Your task to perform on an android device: open a bookmark in the chrome app Image 0: 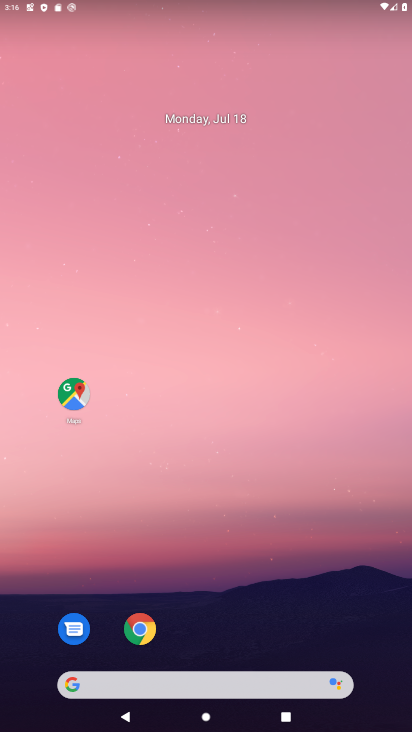
Step 0: click (148, 626)
Your task to perform on an android device: open a bookmark in the chrome app Image 1: 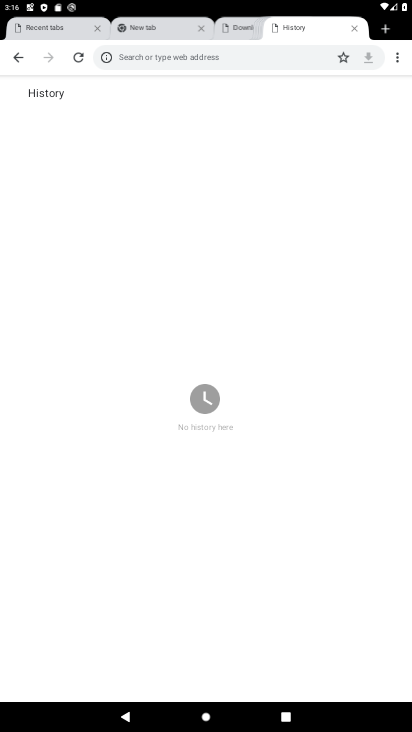
Step 1: click (393, 61)
Your task to perform on an android device: open a bookmark in the chrome app Image 2: 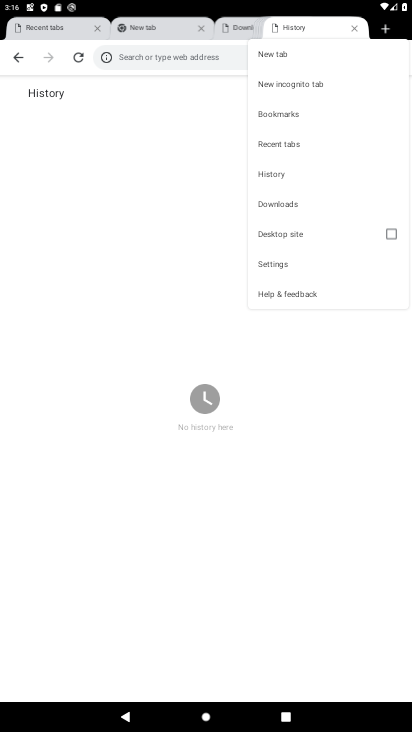
Step 2: click (301, 116)
Your task to perform on an android device: open a bookmark in the chrome app Image 3: 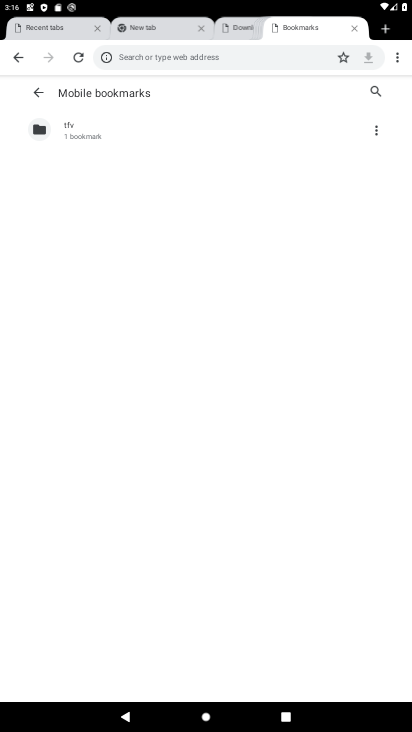
Step 3: click (76, 140)
Your task to perform on an android device: open a bookmark in the chrome app Image 4: 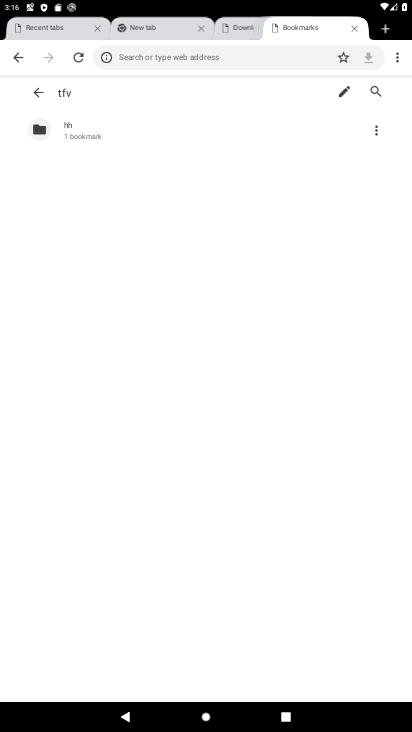
Step 4: click (76, 140)
Your task to perform on an android device: open a bookmark in the chrome app Image 5: 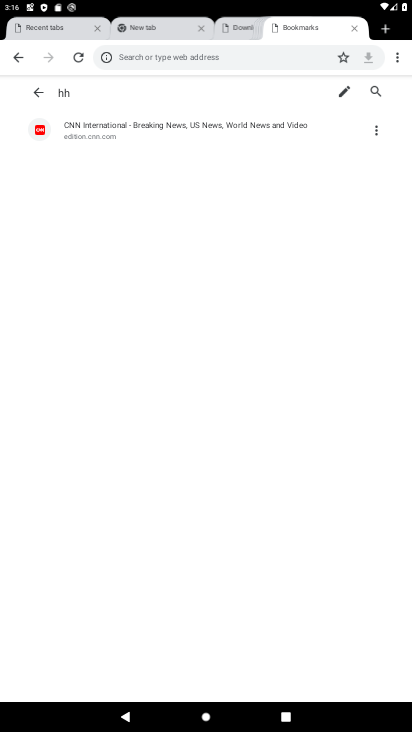
Step 5: click (76, 140)
Your task to perform on an android device: open a bookmark in the chrome app Image 6: 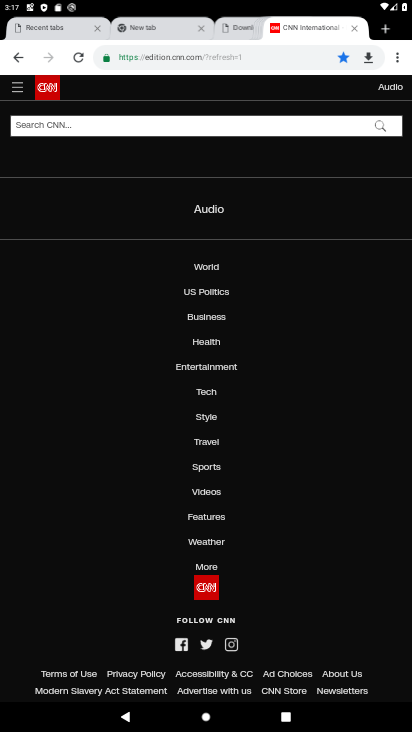
Step 6: task complete